Your task to perform on an android device: turn off airplane mode Image 0: 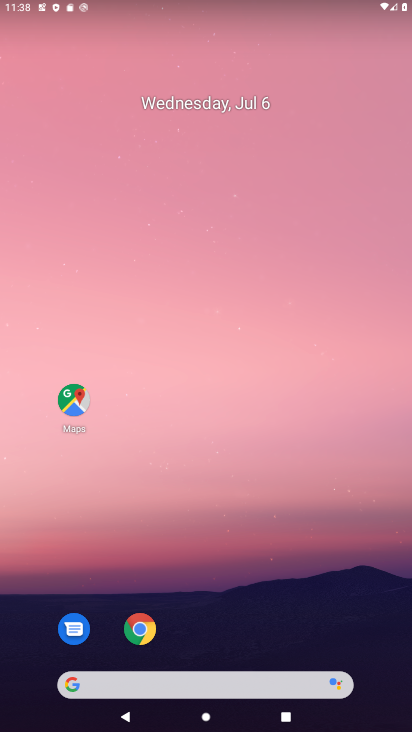
Step 0: drag from (199, 624) to (199, 244)
Your task to perform on an android device: turn off airplane mode Image 1: 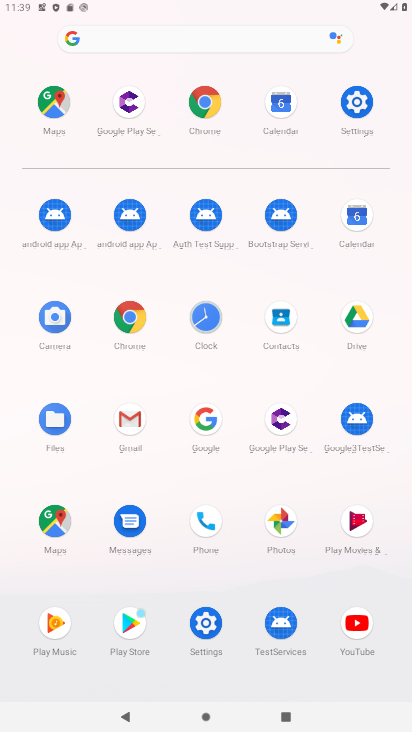
Step 1: click (359, 129)
Your task to perform on an android device: turn off airplane mode Image 2: 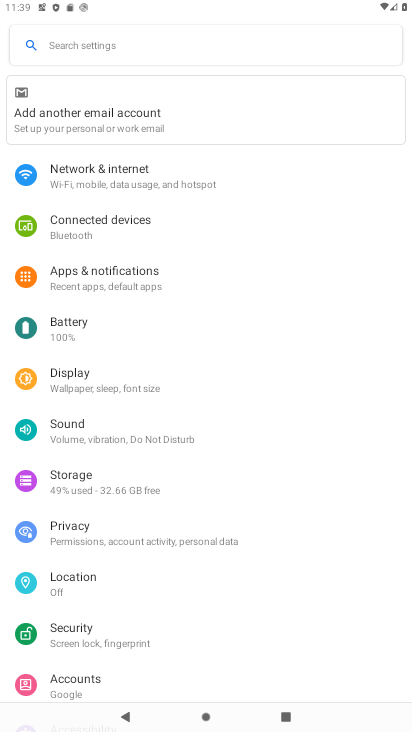
Step 2: click (126, 175)
Your task to perform on an android device: turn off airplane mode Image 3: 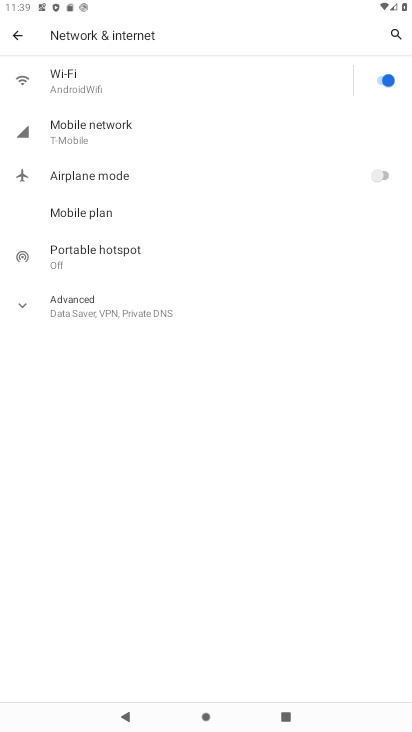
Step 3: task complete